Your task to perform on an android device: turn on data saver in the chrome app Image 0: 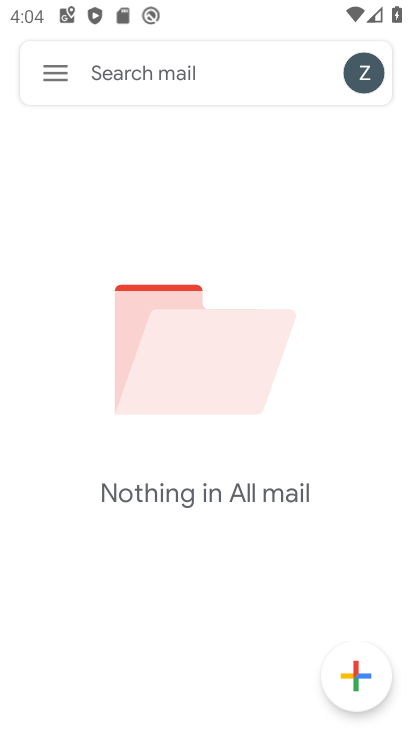
Step 0: press home button
Your task to perform on an android device: turn on data saver in the chrome app Image 1: 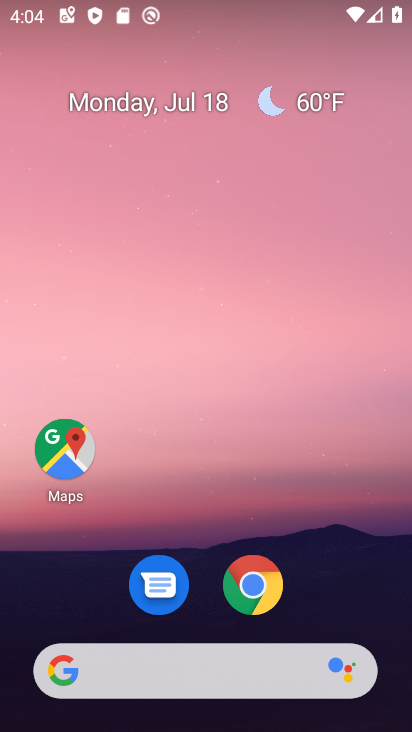
Step 1: click (274, 589)
Your task to perform on an android device: turn on data saver in the chrome app Image 2: 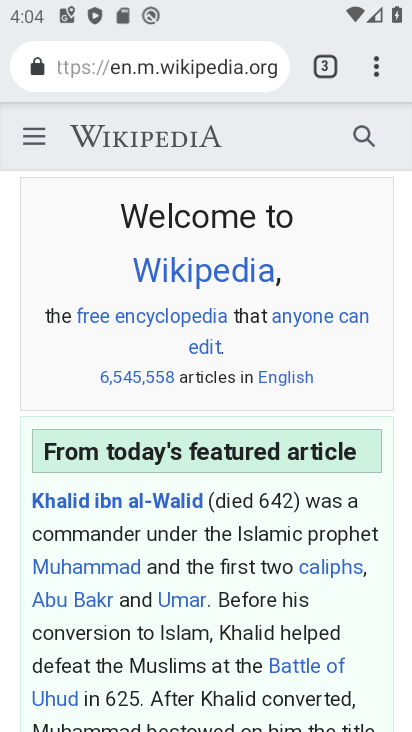
Step 2: click (370, 69)
Your task to perform on an android device: turn on data saver in the chrome app Image 3: 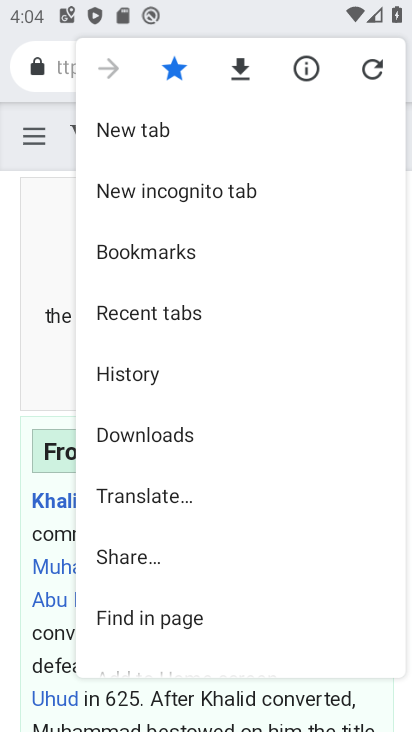
Step 3: drag from (223, 566) to (265, 206)
Your task to perform on an android device: turn on data saver in the chrome app Image 4: 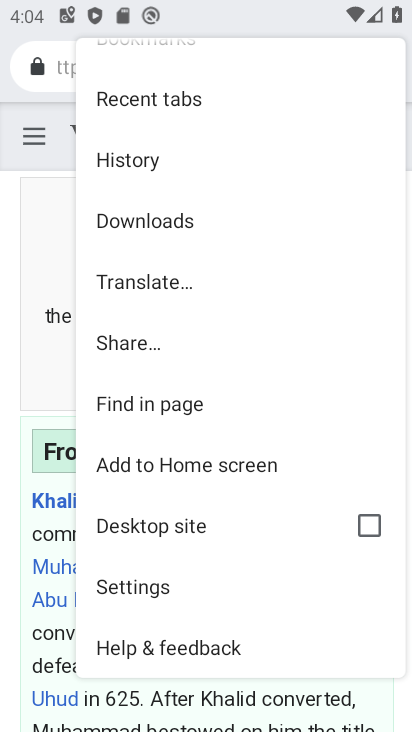
Step 4: click (160, 584)
Your task to perform on an android device: turn on data saver in the chrome app Image 5: 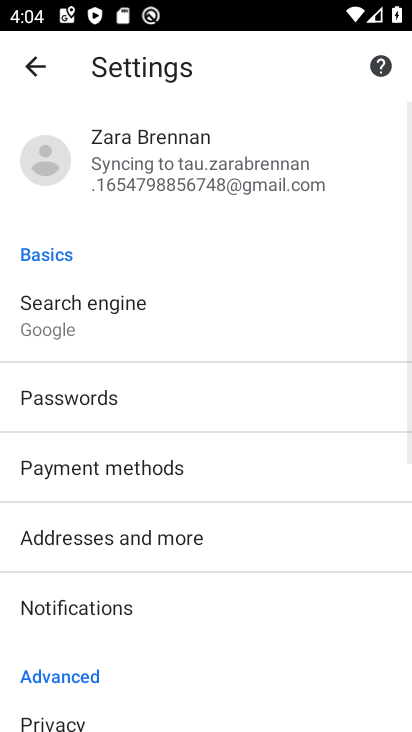
Step 5: drag from (236, 637) to (285, 169)
Your task to perform on an android device: turn on data saver in the chrome app Image 6: 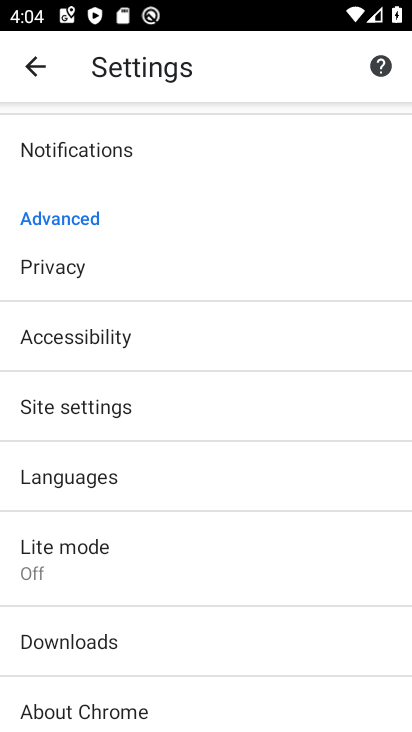
Step 6: click (174, 582)
Your task to perform on an android device: turn on data saver in the chrome app Image 7: 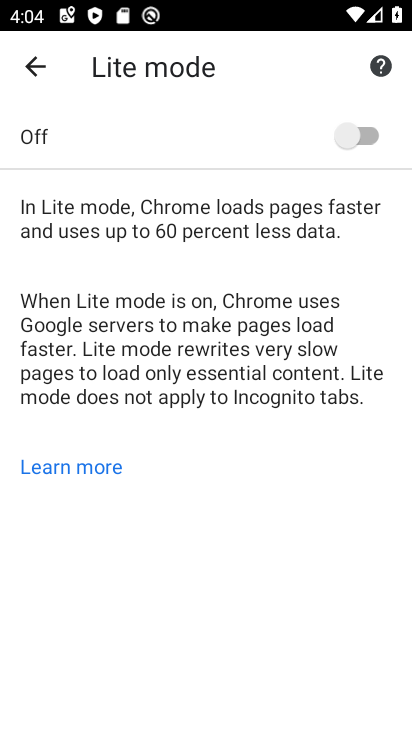
Step 7: click (354, 139)
Your task to perform on an android device: turn on data saver in the chrome app Image 8: 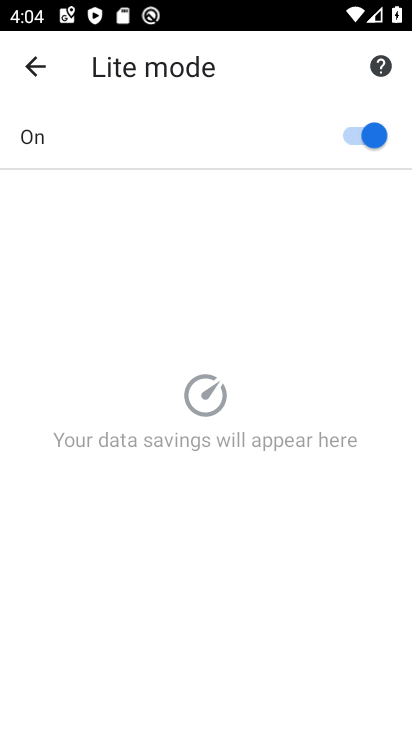
Step 8: task complete